Your task to perform on an android device: Go to privacy settings Image 0: 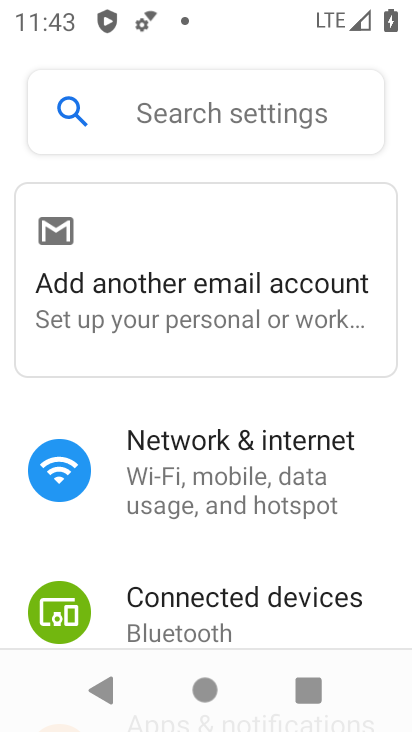
Step 0: press home button
Your task to perform on an android device: Go to privacy settings Image 1: 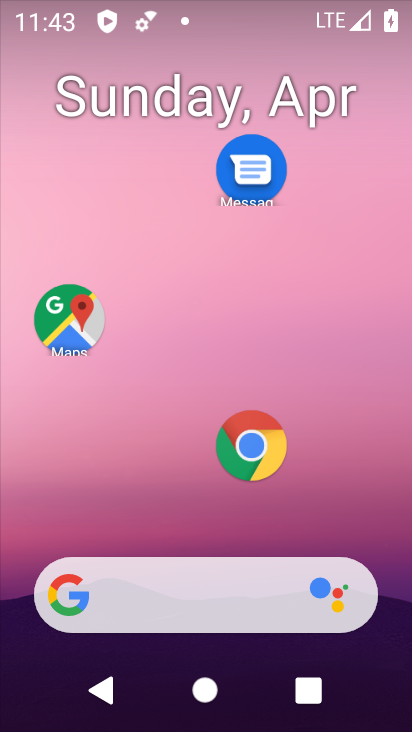
Step 1: drag from (177, 532) to (292, 46)
Your task to perform on an android device: Go to privacy settings Image 2: 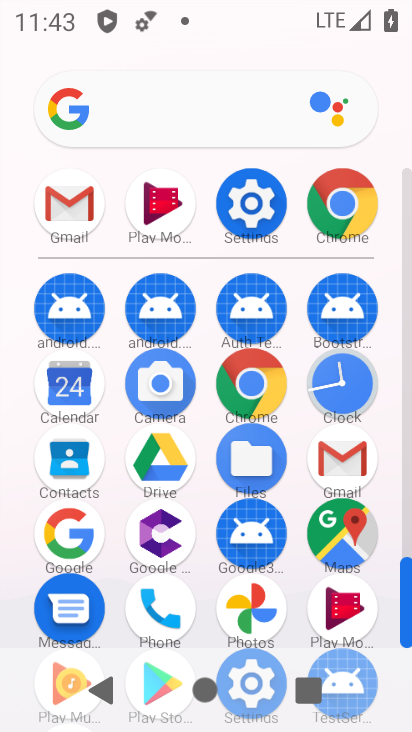
Step 2: click (247, 203)
Your task to perform on an android device: Go to privacy settings Image 3: 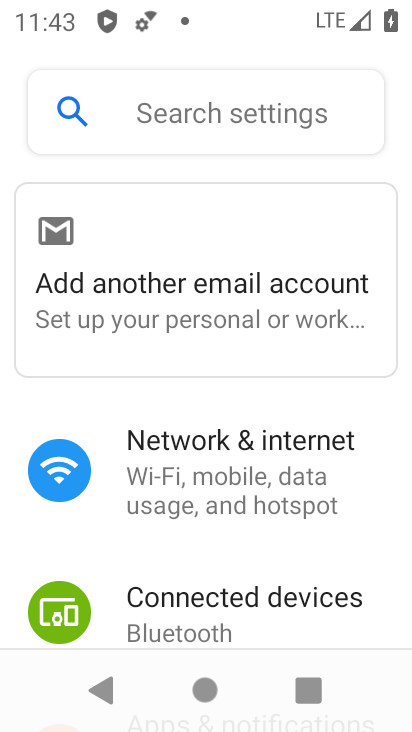
Step 3: drag from (215, 617) to (323, 198)
Your task to perform on an android device: Go to privacy settings Image 4: 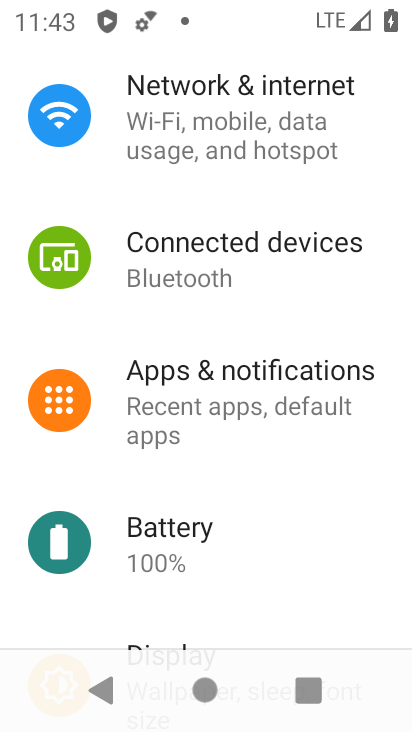
Step 4: drag from (183, 675) to (379, 7)
Your task to perform on an android device: Go to privacy settings Image 5: 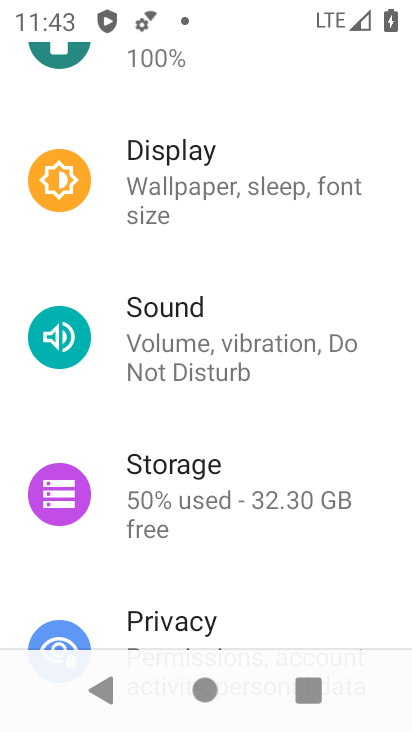
Step 5: drag from (228, 499) to (292, 272)
Your task to perform on an android device: Go to privacy settings Image 6: 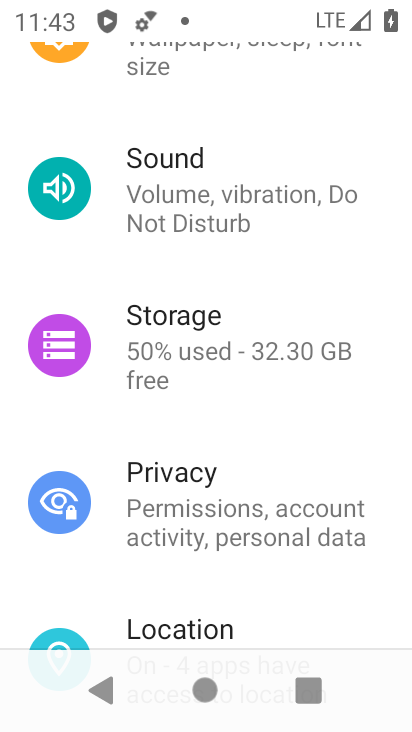
Step 6: click (191, 477)
Your task to perform on an android device: Go to privacy settings Image 7: 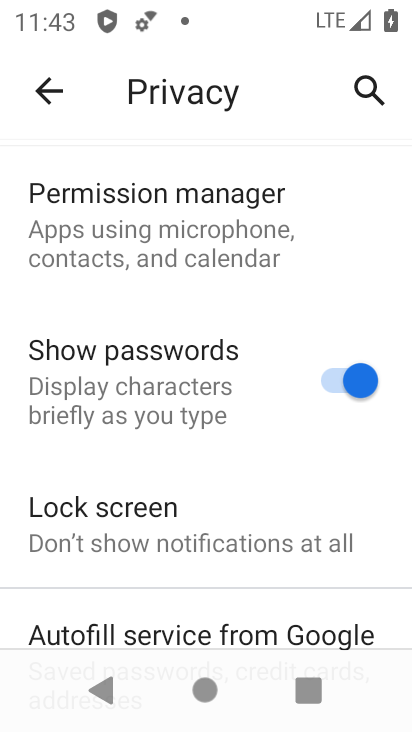
Step 7: task complete